Your task to perform on an android device: Set the phone to "Do not disturb". Image 0: 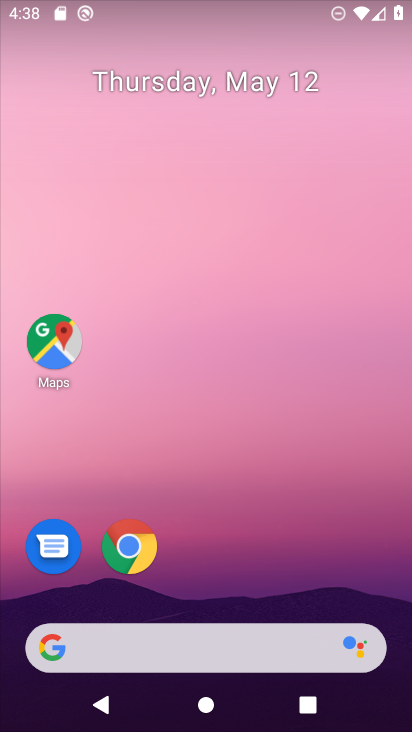
Step 0: drag from (300, 601) to (241, 166)
Your task to perform on an android device: Set the phone to "Do not disturb". Image 1: 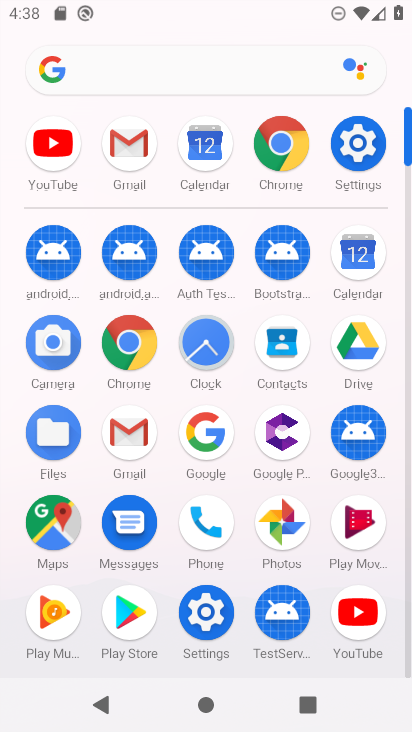
Step 1: drag from (189, 3) to (211, 395)
Your task to perform on an android device: Set the phone to "Do not disturb". Image 2: 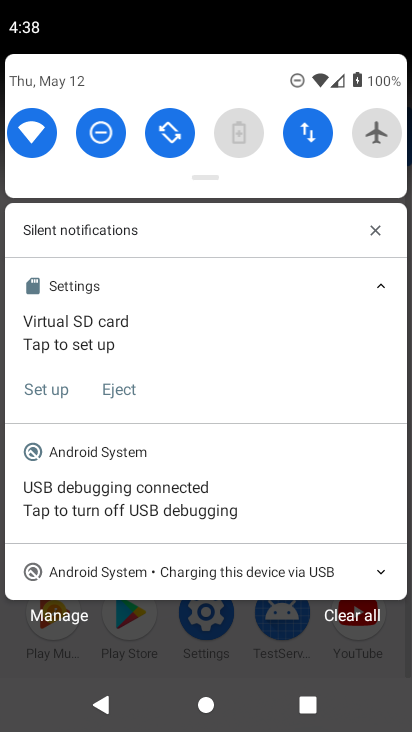
Step 2: click (99, 124)
Your task to perform on an android device: Set the phone to "Do not disturb". Image 3: 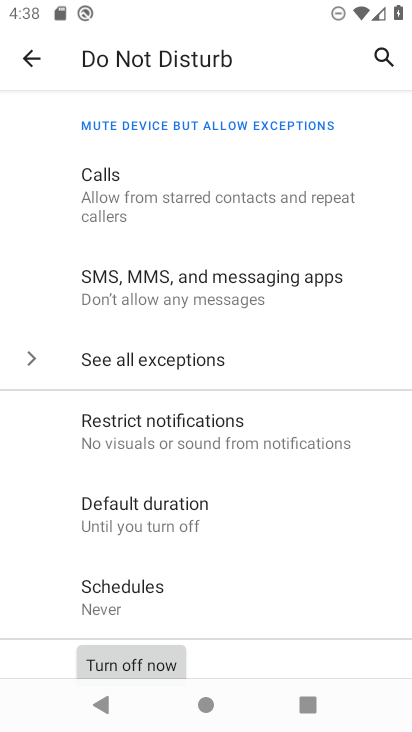
Step 3: task complete